Your task to perform on an android device: find which apps use the phone's location Image 0: 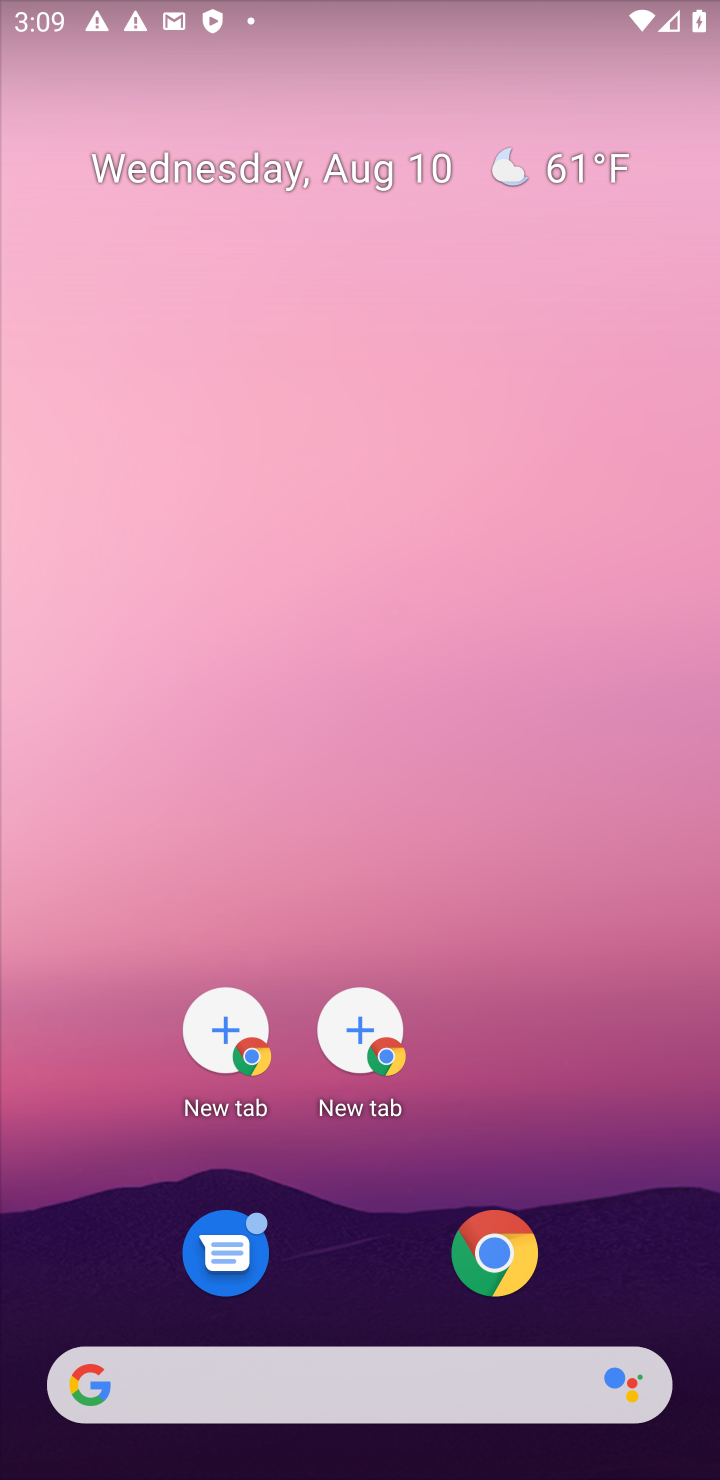
Step 0: drag from (499, 1064) to (463, 288)
Your task to perform on an android device: find which apps use the phone's location Image 1: 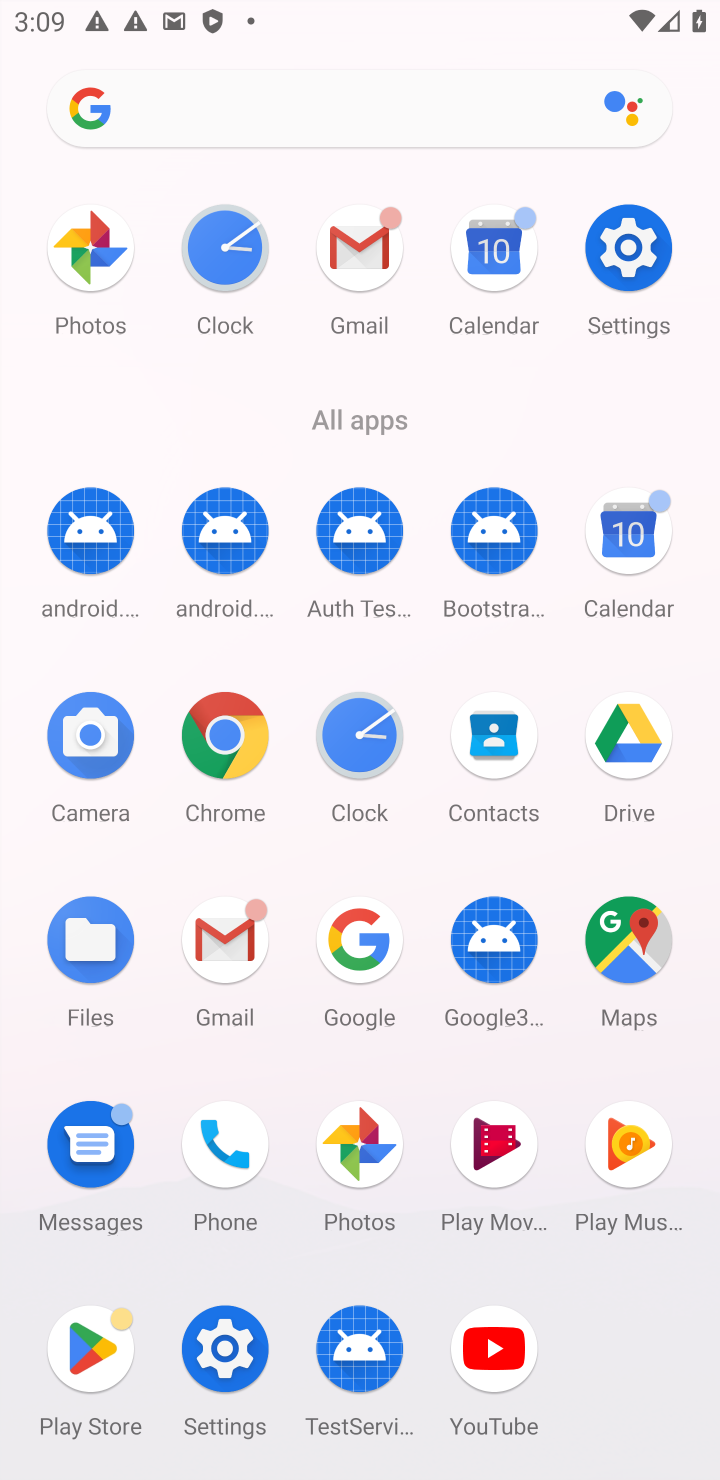
Step 1: click (630, 265)
Your task to perform on an android device: find which apps use the phone's location Image 2: 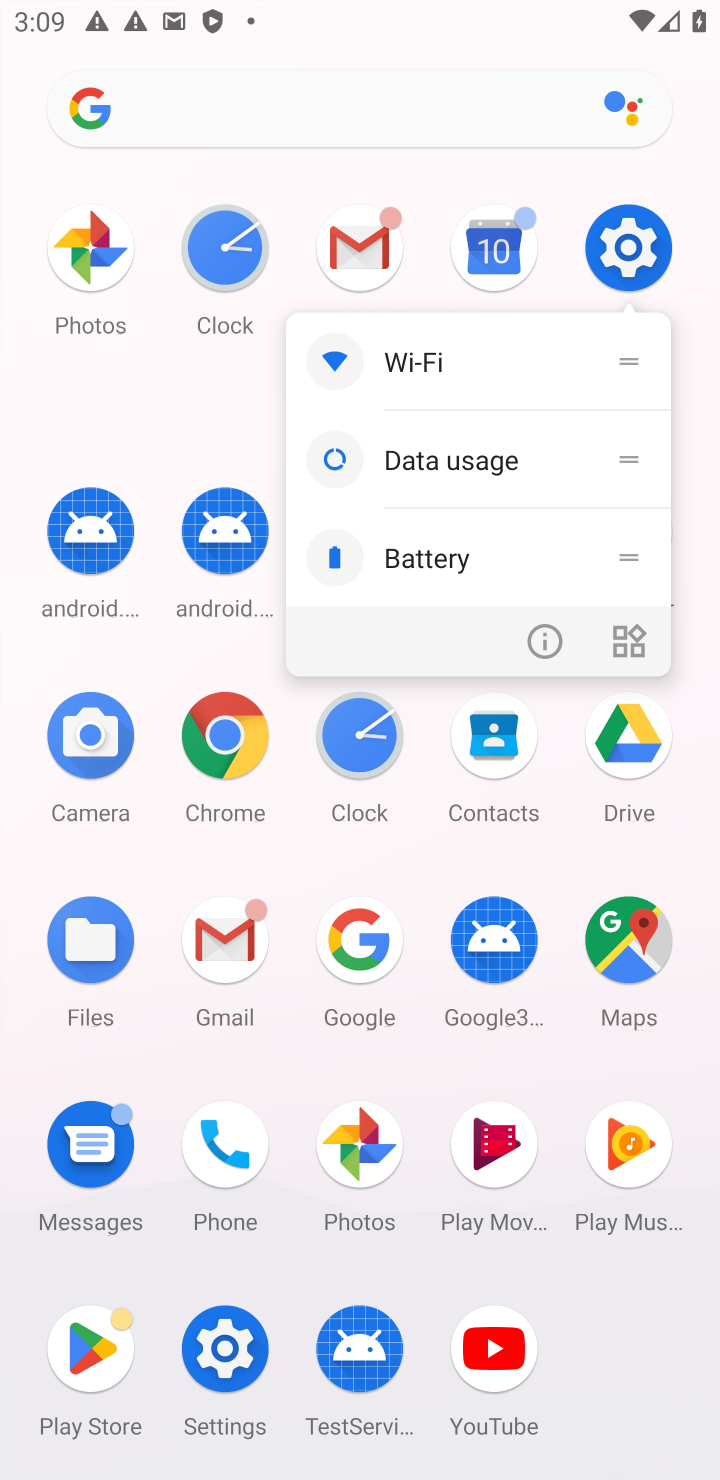
Step 2: click (639, 260)
Your task to perform on an android device: find which apps use the phone's location Image 3: 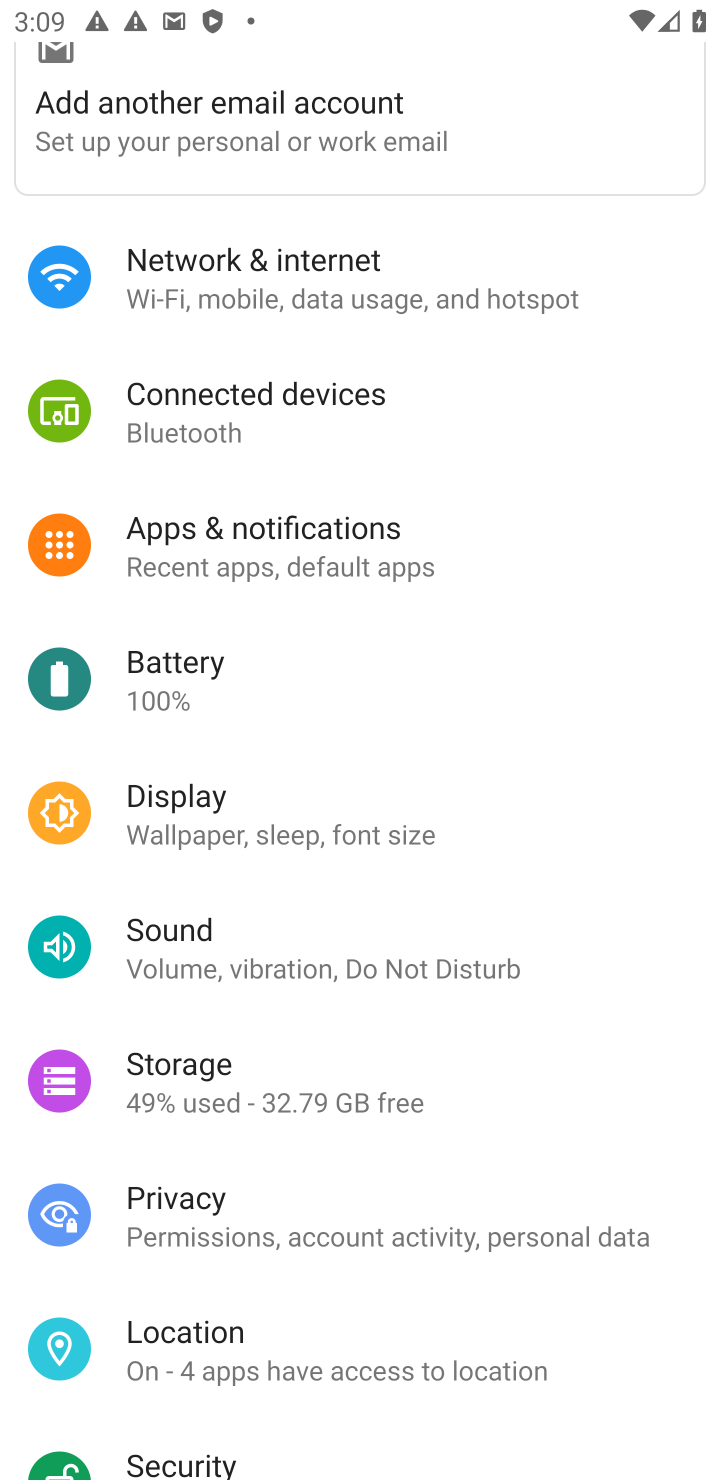
Step 3: task complete